Your task to perform on an android device: What is the news today? Image 0: 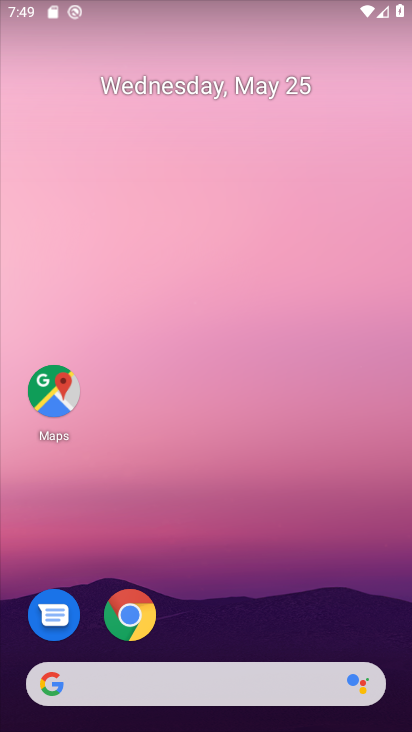
Step 0: drag from (253, 600) to (233, 9)
Your task to perform on an android device: What is the news today? Image 1: 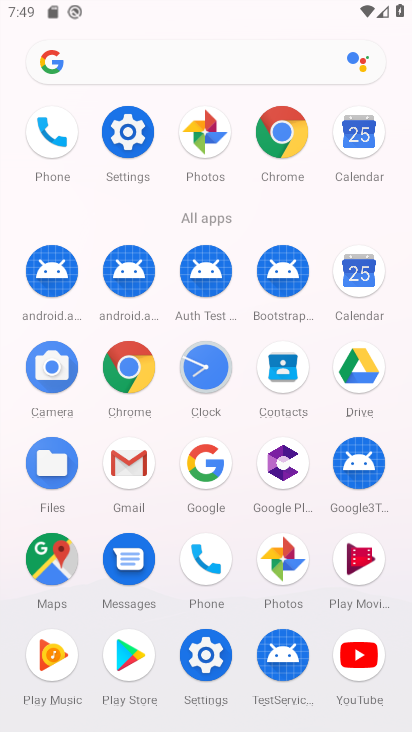
Step 1: drag from (10, 584) to (46, 273)
Your task to perform on an android device: What is the news today? Image 2: 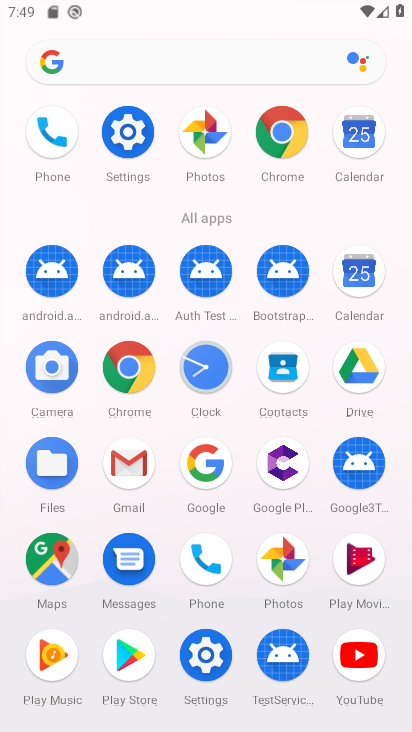
Step 2: click (126, 361)
Your task to perform on an android device: What is the news today? Image 3: 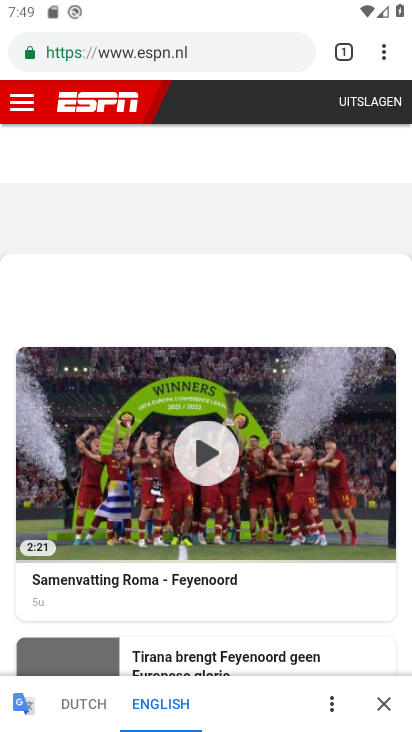
Step 3: click (178, 54)
Your task to perform on an android device: What is the news today? Image 4: 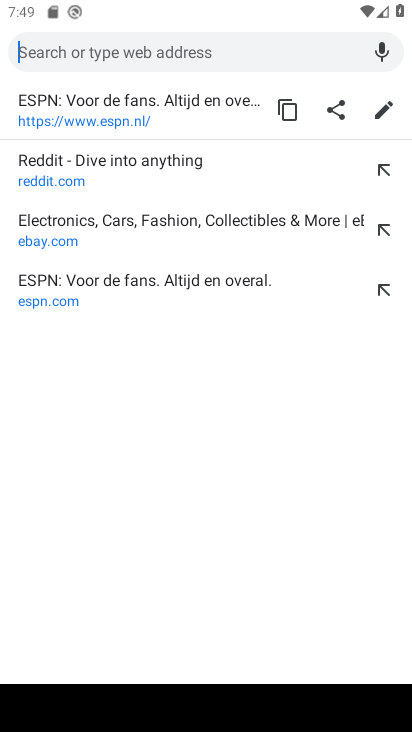
Step 4: type "What is the news today?"
Your task to perform on an android device: What is the news today? Image 5: 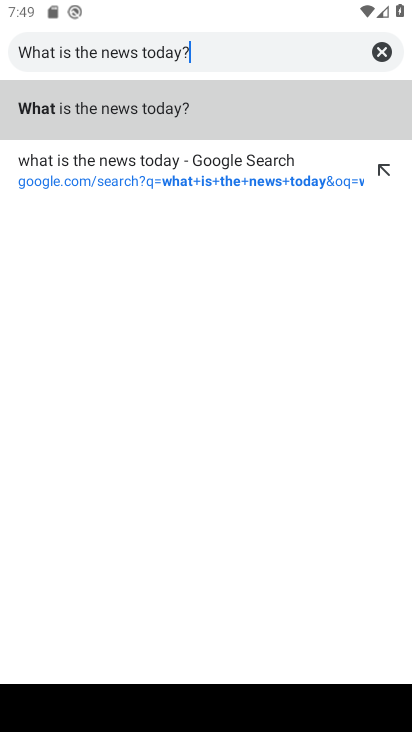
Step 5: click (144, 118)
Your task to perform on an android device: What is the news today? Image 6: 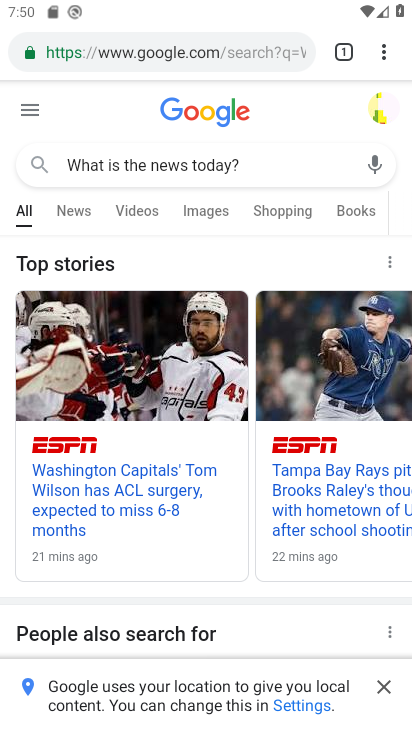
Step 6: task complete